Your task to perform on an android device: Go to accessibility settings Image 0: 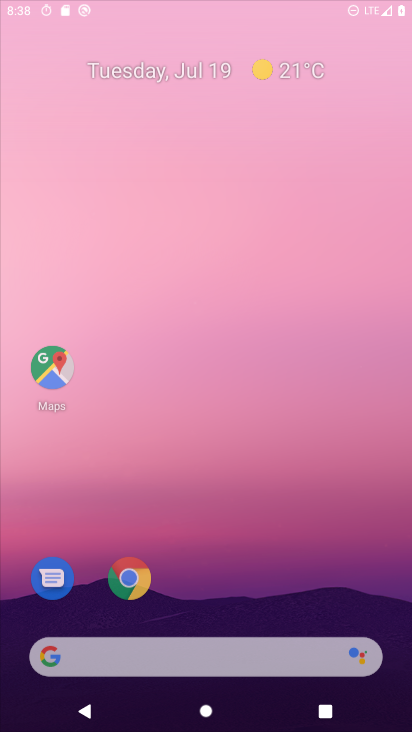
Step 0: drag from (281, 510) to (366, 157)
Your task to perform on an android device: Go to accessibility settings Image 1: 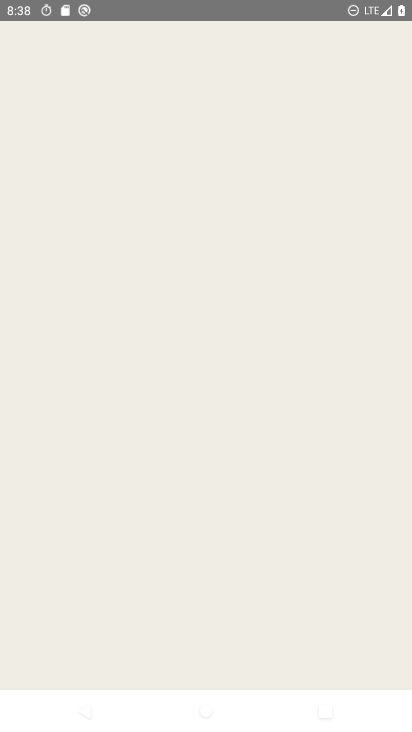
Step 1: press home button
Your task to perform on an android device: Go to accessibility settings Image 2: 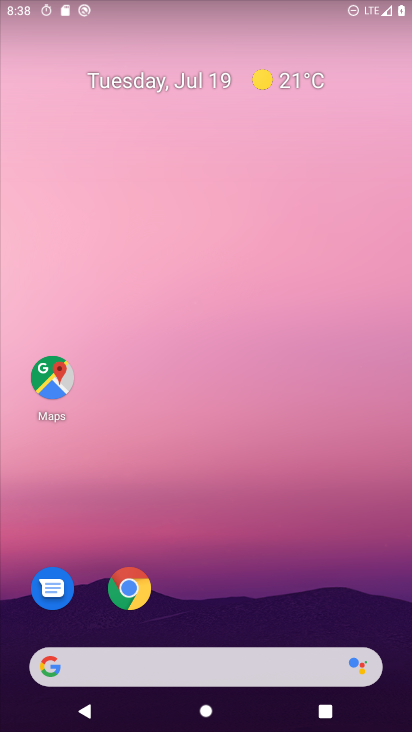
Step 2: drag from (266, 573) to (239, 85)
Your task to perform on an android device: Go to accessibility settings Image 3: 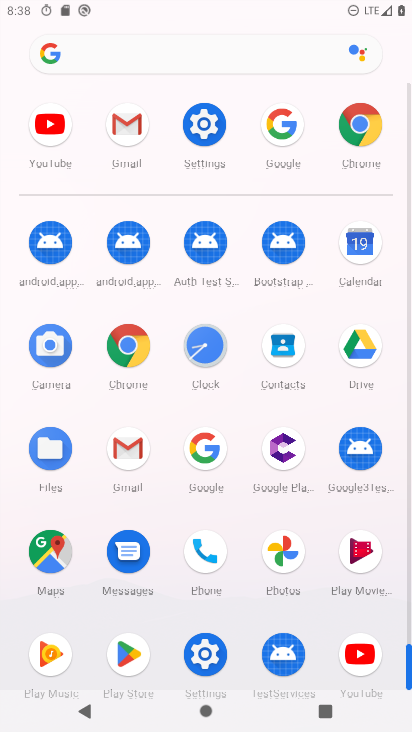
Step 3: click (199, 663)
Your task to perform on an android device: Go to accessibility settings Image 4: 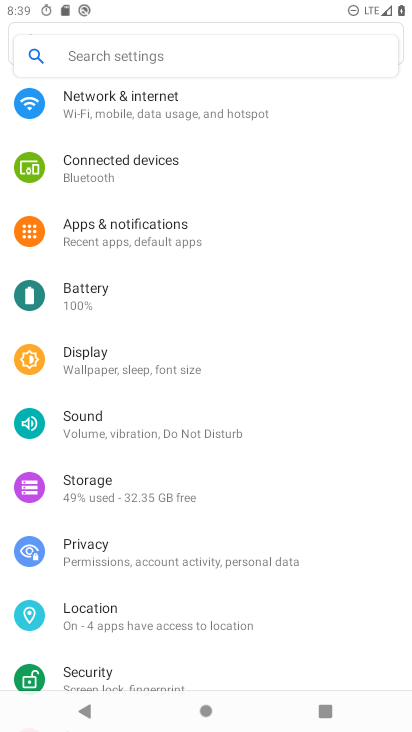
Step 4: drag from (205, 395) to (235, 146)
Your task to perform on an android device: Go to accessibility settings Image 5: 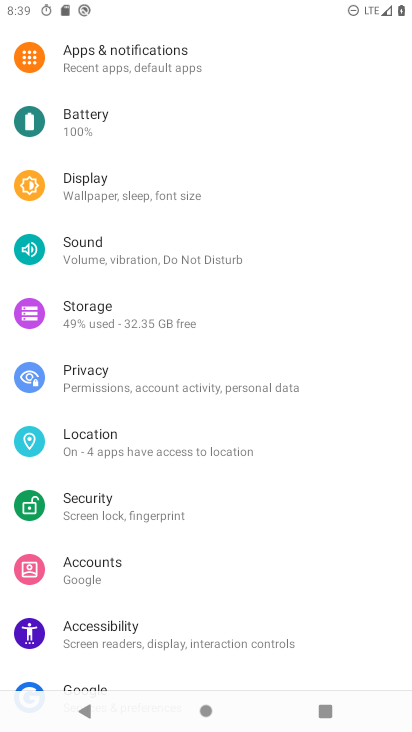
Step 5: click (321, 708)
Your task to perform on an android device: Go to accessibility settings Image 6: 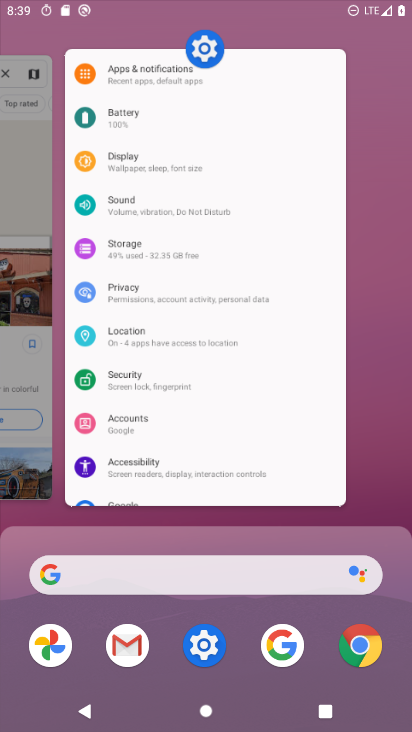
Step 6: click (289, 450)
Your task to perform on an android device: Go to accessibility settings Image 7: 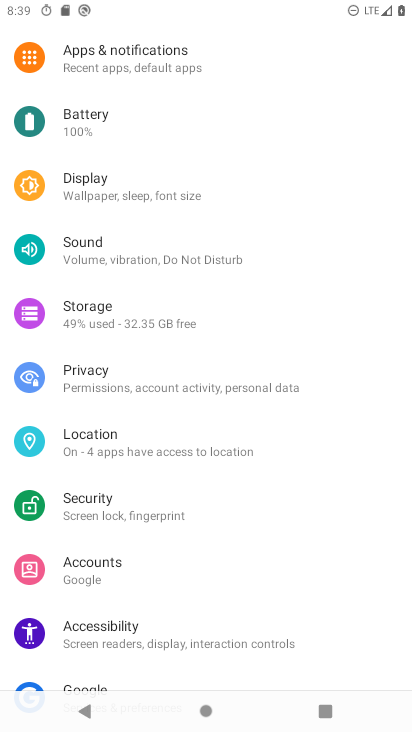
Step 7: click (124, 646)
Your task to perform on an android device: Go to accessibility settings Image 8: 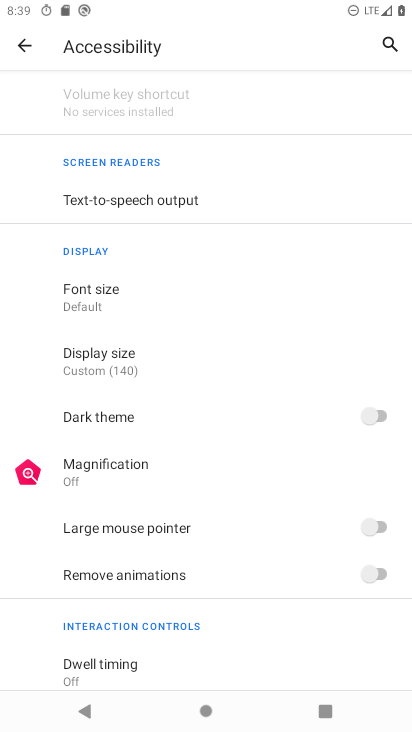
Step 8: task complete